Your task to perform on an android device: Go to Yahoo.com Image 0: 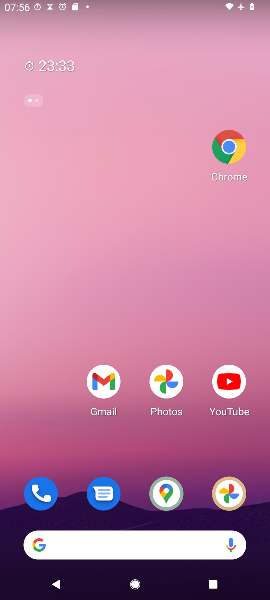
Step 0: press home button
Your task to perform on an android device: Go to Yahoo.com Image 1: 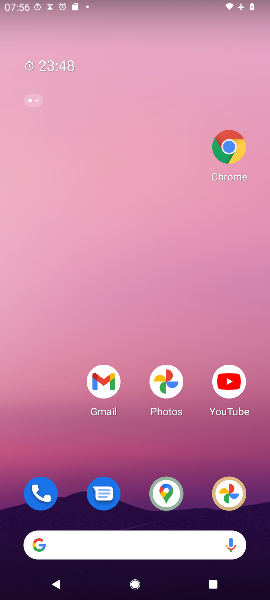
Step 1: click (30, 549)
Your task to perform on an android device: Go to Yahoo.com Image 2: 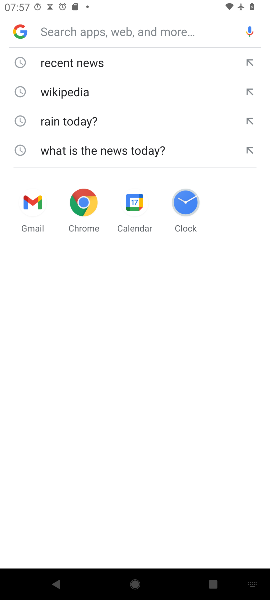
Step 2: type "Yahoo.com"
Your task to perform on an android device: Go to Yahoo.com Image 3: 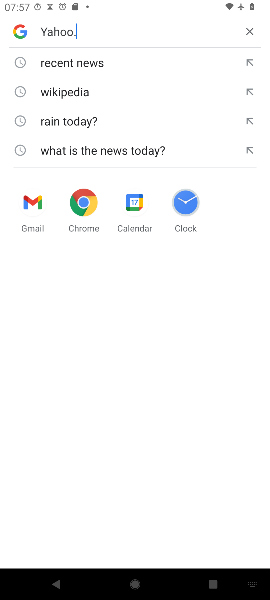
Step 3: press enter
Your task to perform on an android device: Go to Yahoo.com Image 4: 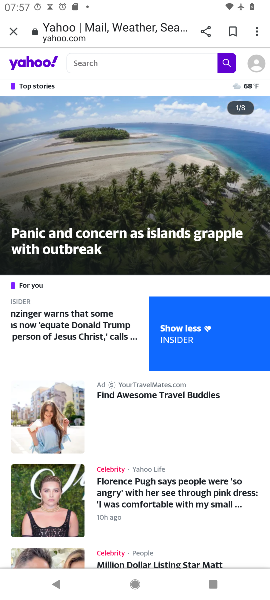
Step 4: task complete